Your task to perform on an android device: Open Maps and search for coffee Image 0: 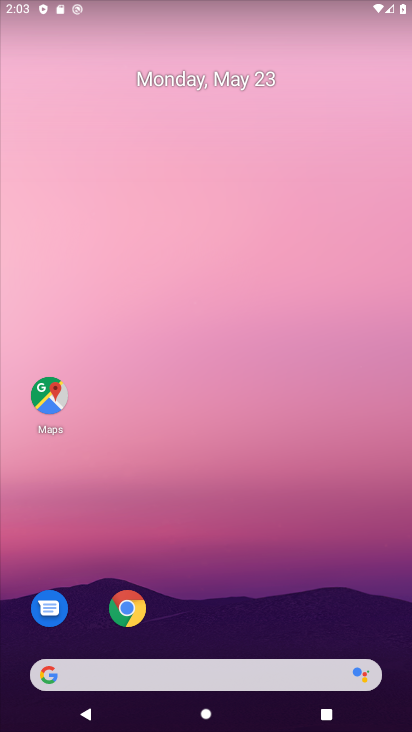
Step 0: drag from (200, 642) to (198, 105)
Your task to perform on an android device: Open Maps and search for coffee Image 1: 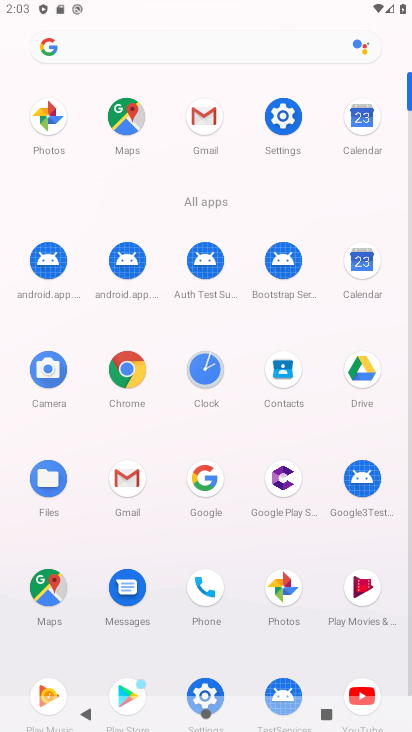
Step 1: click (32, 591)
Your task to perform on an android device: Open Maps and search for coffee Image 2: 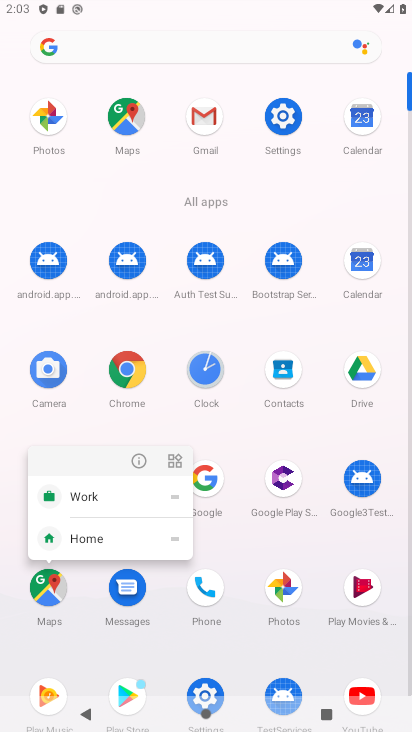
Step 2: click (43, 582)
Your task to perform on an android device: Open Maps and search for coffee Image 3: 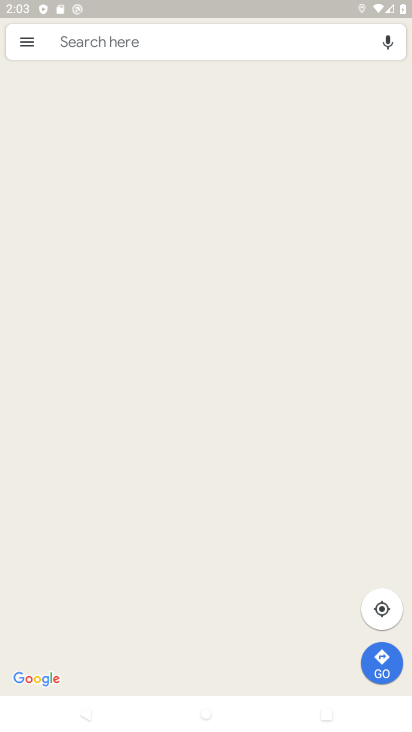
Step 3: click (200, 34)
Your task to perform on an android device: Open Maps and search for coffee Image 4: 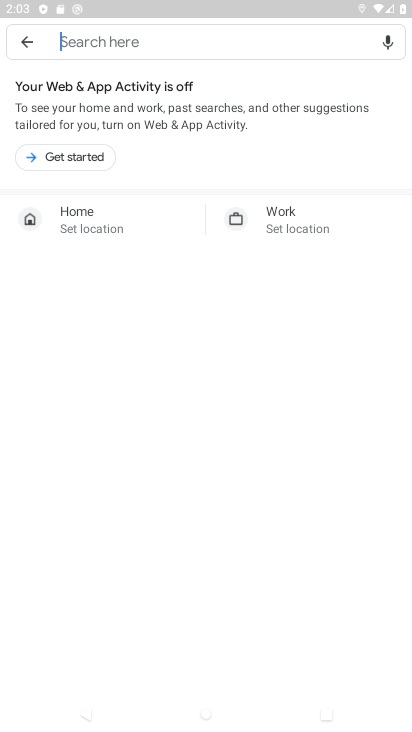
Step 4: click (205, 47)
Your task to perform on an android device: Open Maps and search for coffee Image 5: 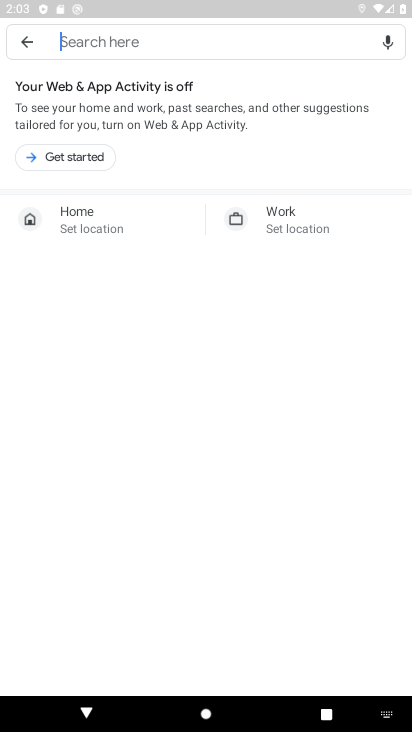
Step 5: click (49, 163)
Your task to perform on an android device: Open Maps and search for coffee Image 6: 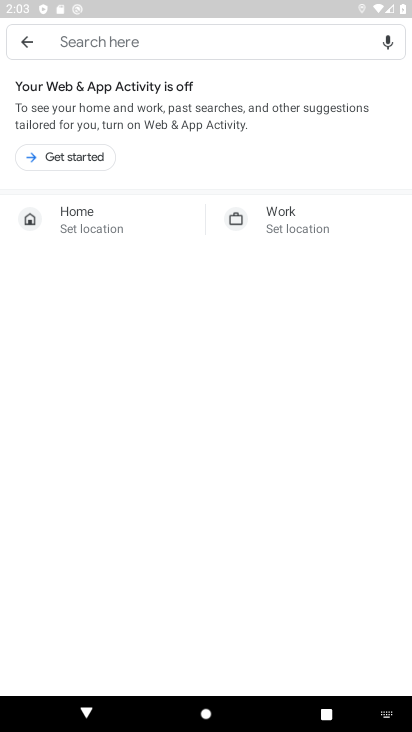
Step 6: click (180, 45)
Your task to perform on an android device: Open Maps and search for coffee Image 7: 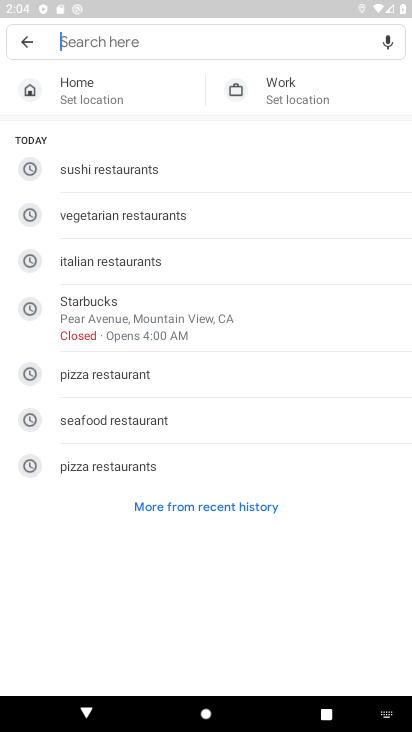
Step 7: type "coffee"
Your task to perform on an android device: Open Maps and search for coffee Image 8: 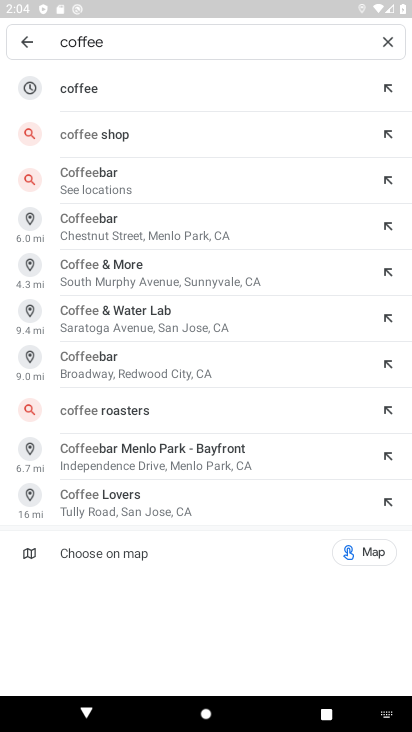
Step 8: click (87, 94)
Your task to perform on an android device: Open Maps and search for coffee Image 9: 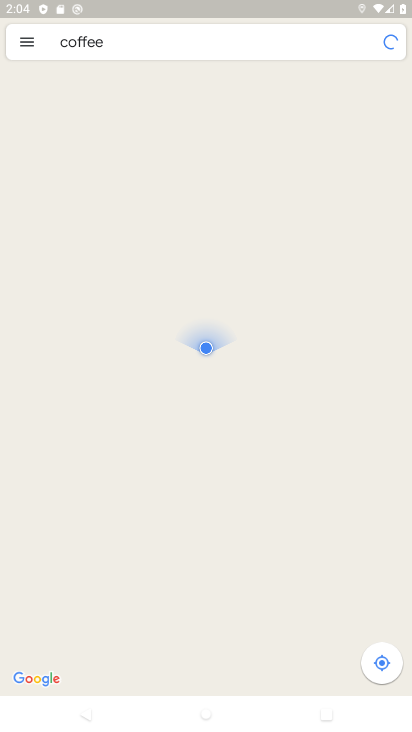
Step 9: task complete